Your task to perform on an android device: turn off improve location accuracy Image 0: 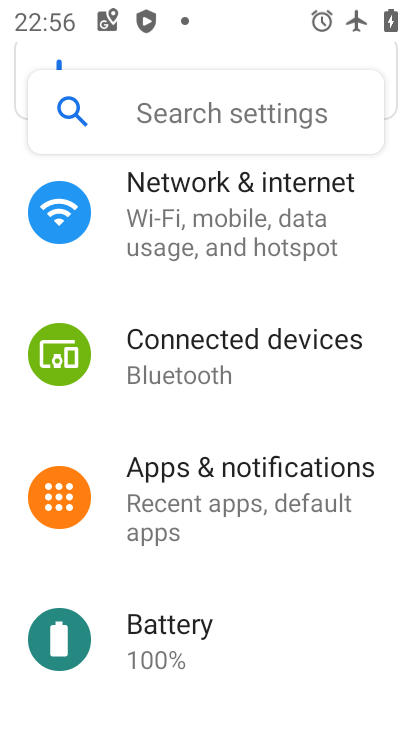
Step 0: drag from (281, 556) to (250, 195)
Your task to perform on an android device: turn off improve location accuracy Image 1: 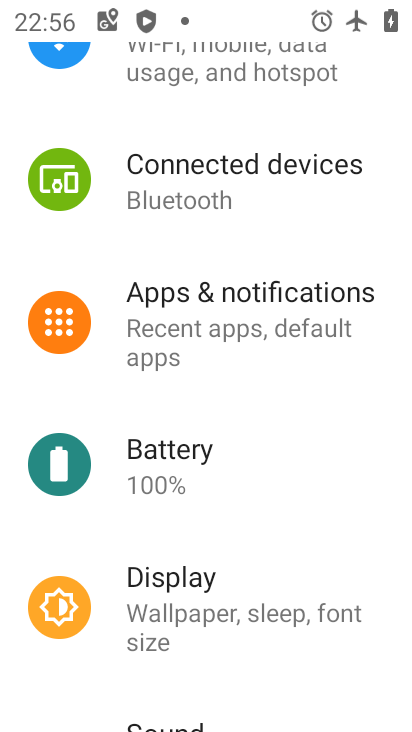
Step 1: drag from (251, 487) to (232, 110)
Your task to perform on an android device: turn off improve location accuracy Image 2: 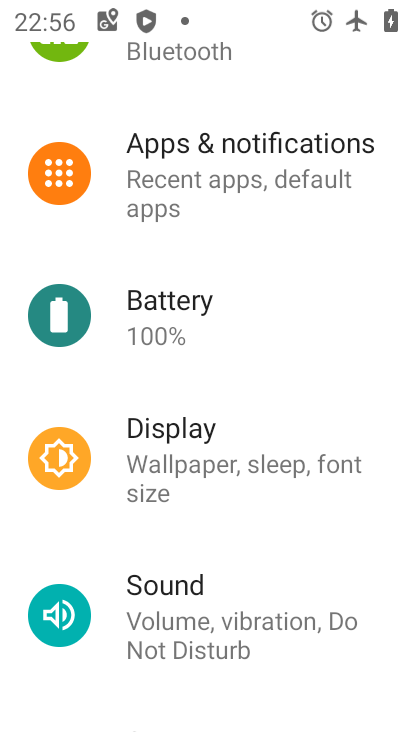
Step 2: drag from (234, 530) to (219, 249)
Your task to perform on an android device: turn off improve location accuracy Image 3: 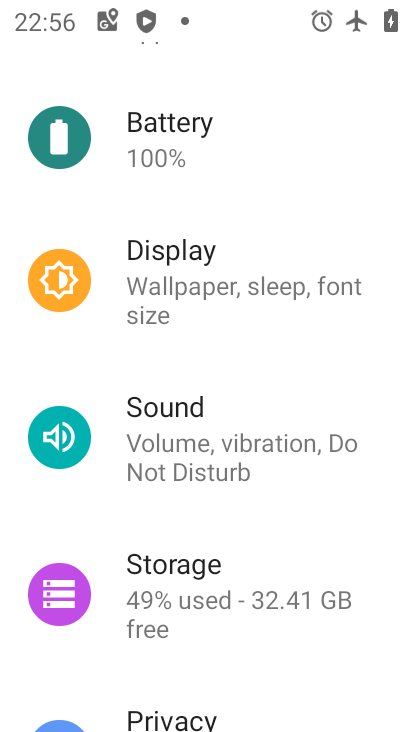
Step 3: drag from (232, 538) to (215, 171)
Your task to perform on an android device: turn off improve location accuracy Image 4: 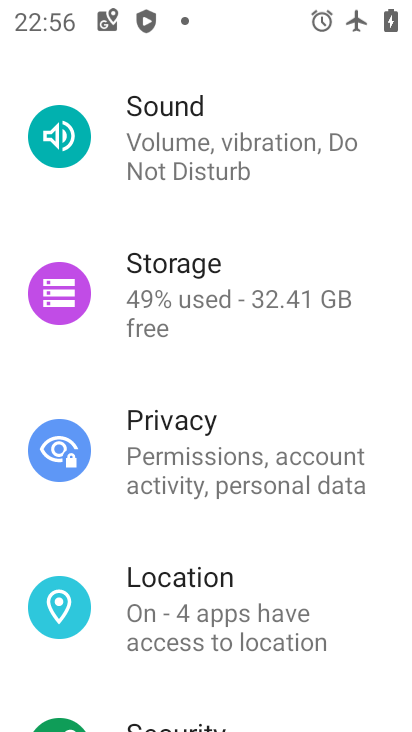
Step 4: click (187, 574)
Your task to perform on an android device: turn off improve location accuracy Image 5: 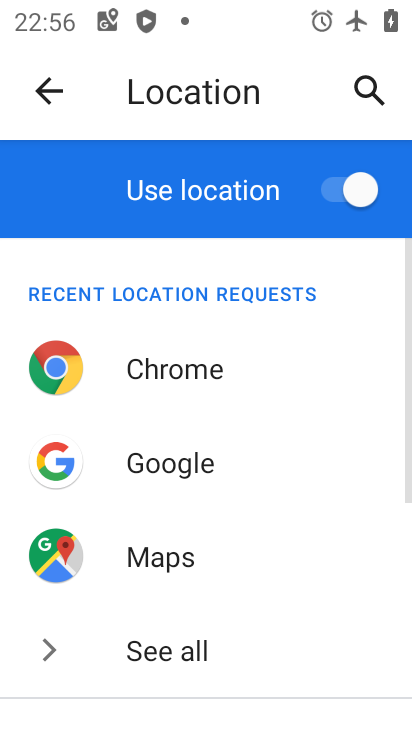
Step 5: drag from (258, 597) to (228, 232)
Your task to perform on an android device: turn off improve location accuracy Image 6: 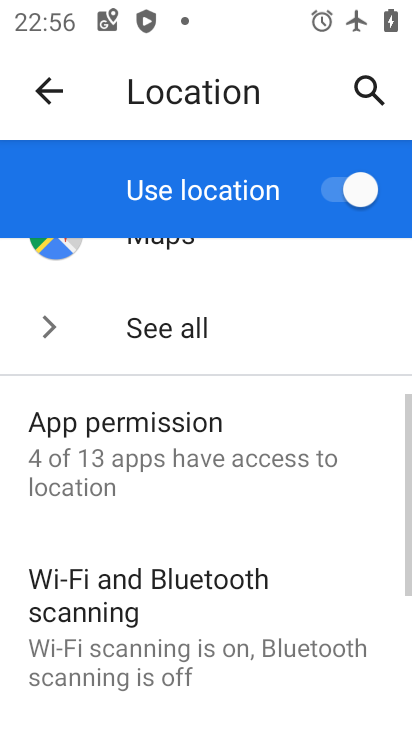
Step 6: drag from (239, 517) to (236, 268)
Your task to perform on an android device: turn off improve location accuracy Image 7: 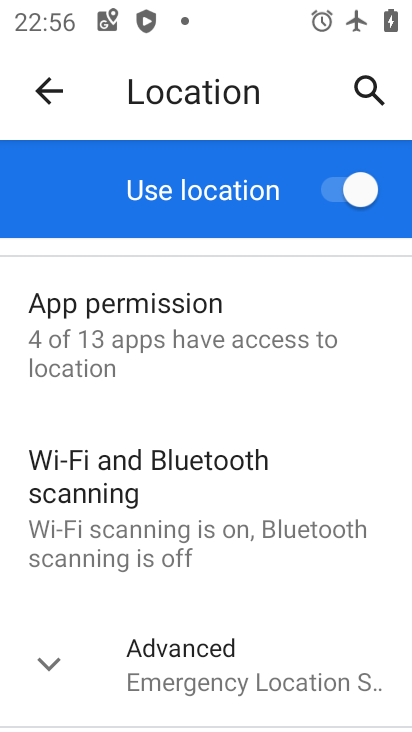
Step 7: click (46, 677)
Your task to perform on an android device: turn off improve location accuracy Image 8: 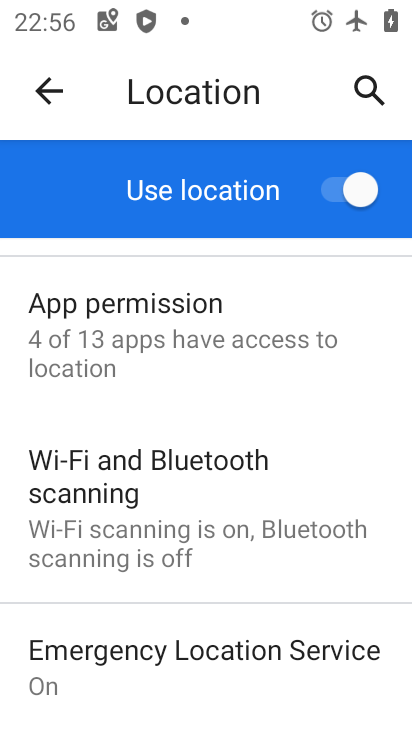
Step 8: drag from (243, 591) to (245, 310)
Your task to perform on an android device: turn off improve location accuracy Image 9: 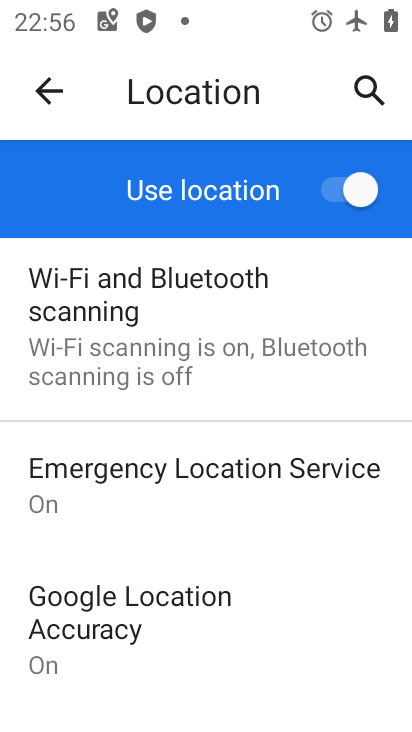
Step 9: click (96, 613)
Your task to perform on an android device: turn off improve location accuracy Image 10: 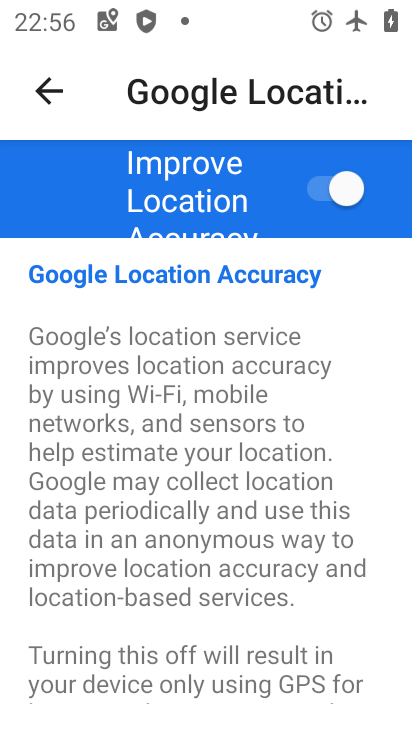
Step 10: click (343, 197)
Your task to perform on an android device: turn off improve location accuracy Image 11: 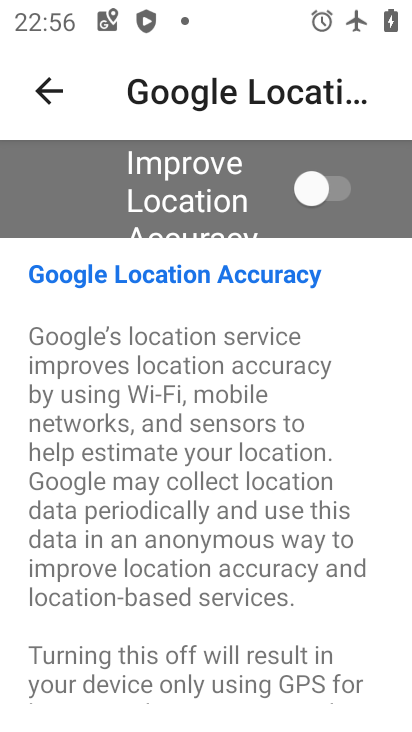
Step 11: task complete